Your task to perform on an android device: set the stopwatch Image 0: 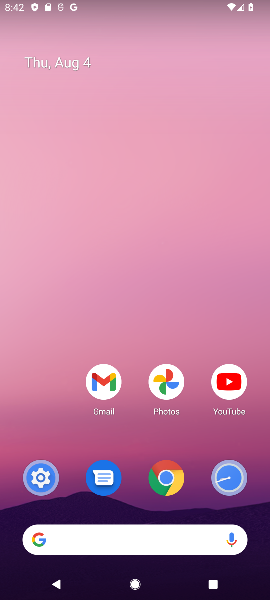
Step 0: press home button
Your task to perform on an android device: set the stopwatch Image 1: 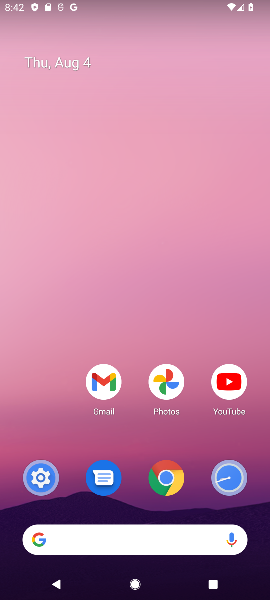
Step 1: drag from (127, 527) to (174, 117)
Your task to perform on an android device: set the stopwatch Image 2: 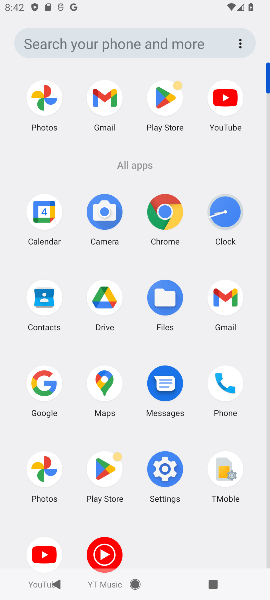
Step 2: click (214, 217)
Your task to perform on an android device: set the stopwatch Image 3: 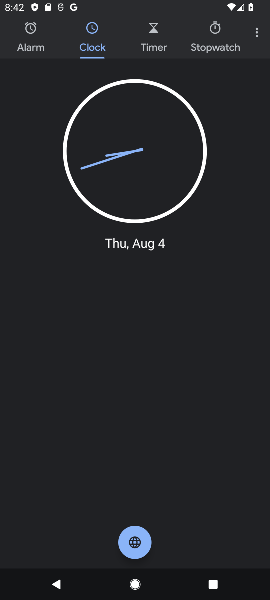
Step 3: click (230, 39)
Your task to perform on an android device: set the stopwatch Image 4: 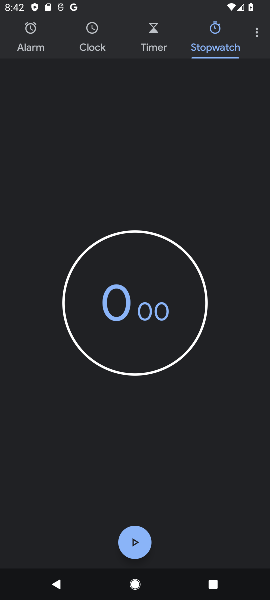
Step 4: click (138, 535)
Your task to perform on an android device: set the stopwatch Image 5: 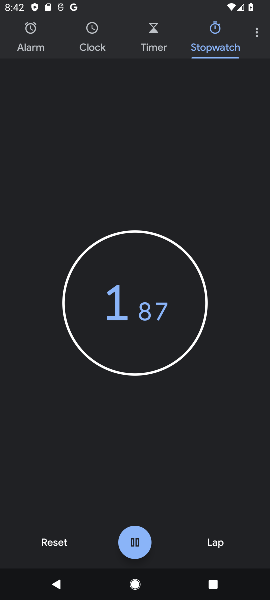
Step 5: task complete